Your task to perform on an android device: Open internet settings Image 0: 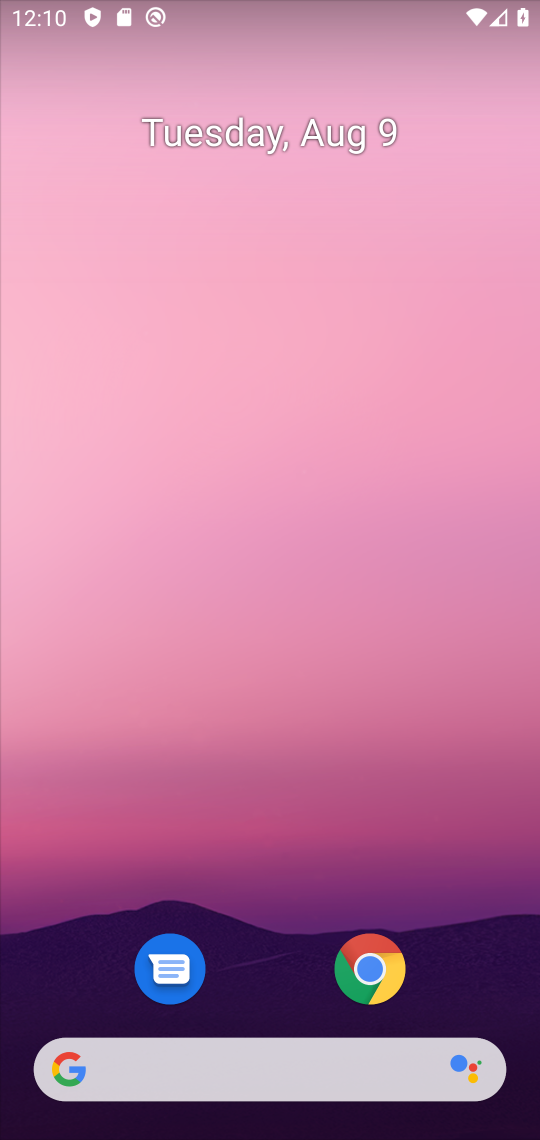
Step 0: drag from (304, 950) to (297, 256)
Your task to perform on an android device: Open internet settings Image 1: 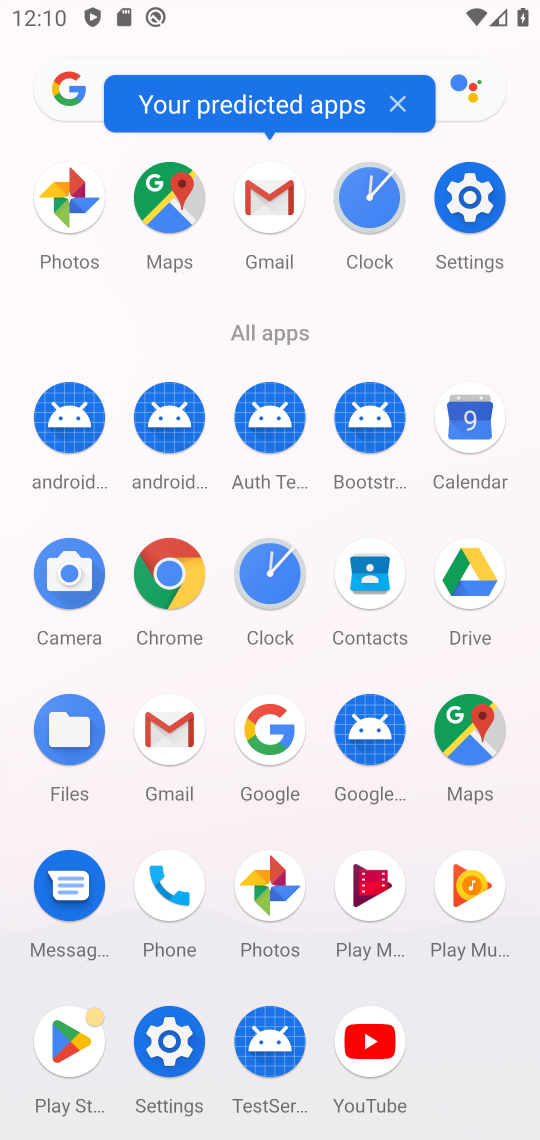
Step 1: click (181, 1071)
Your task to perform on an android device: Open internet settings Image 2: 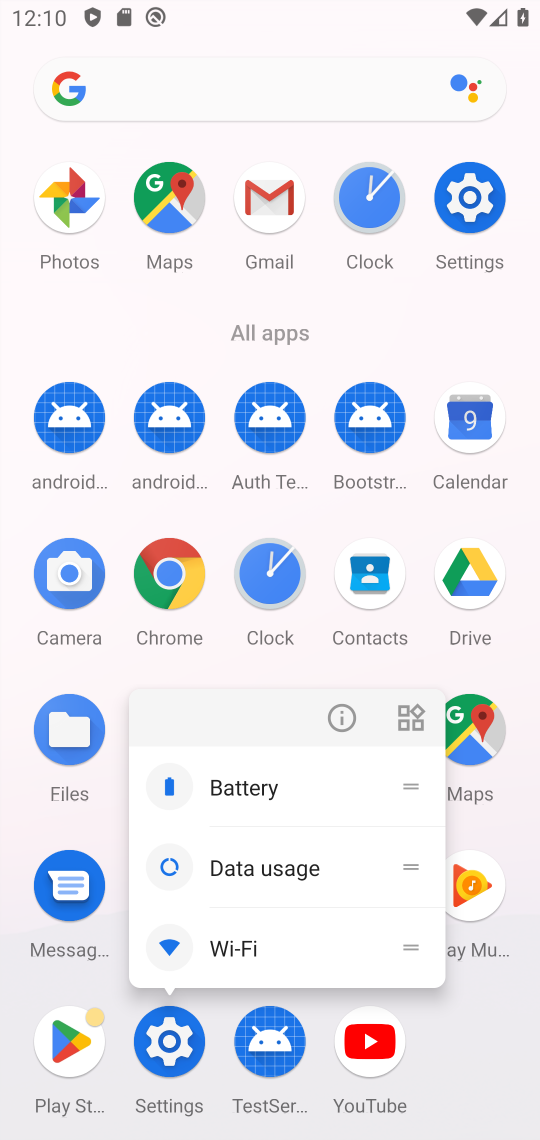
Step 2: click (349, 709)
Your task to perform on an android device: Open internet settings Image 3: 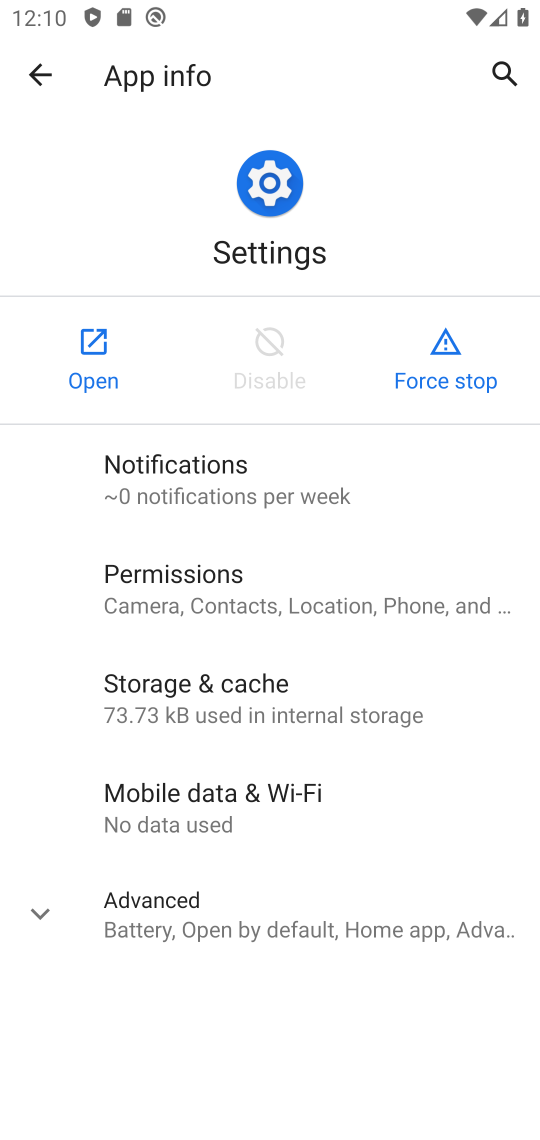
Step 3: click (91, 348)
Your task to perform on an android device: Open internet settings Image 4: 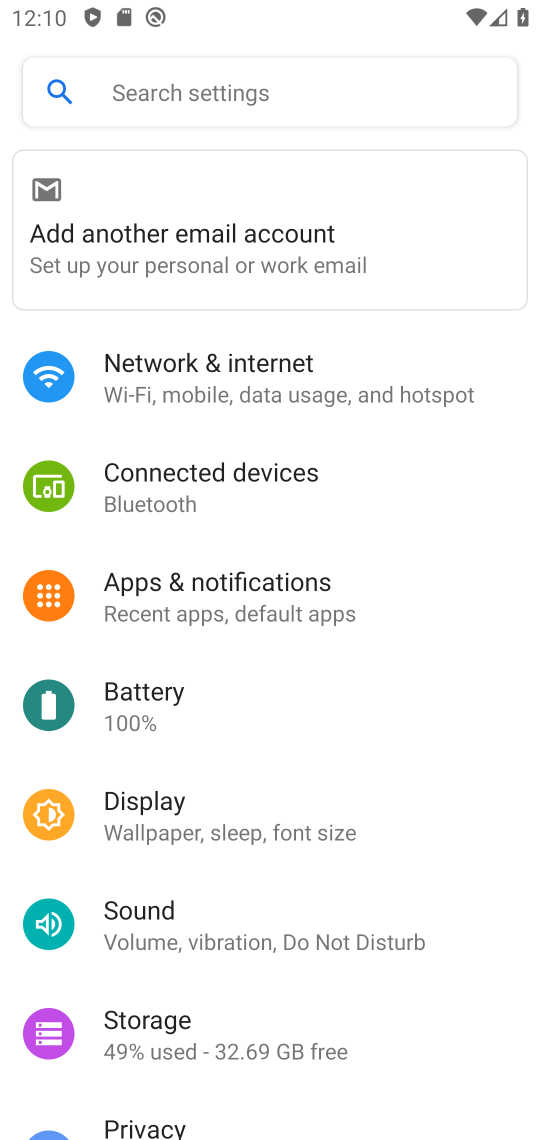
Step 4: click (230, 406)
Your task to perform on an android device: Open internet settings Image 5: 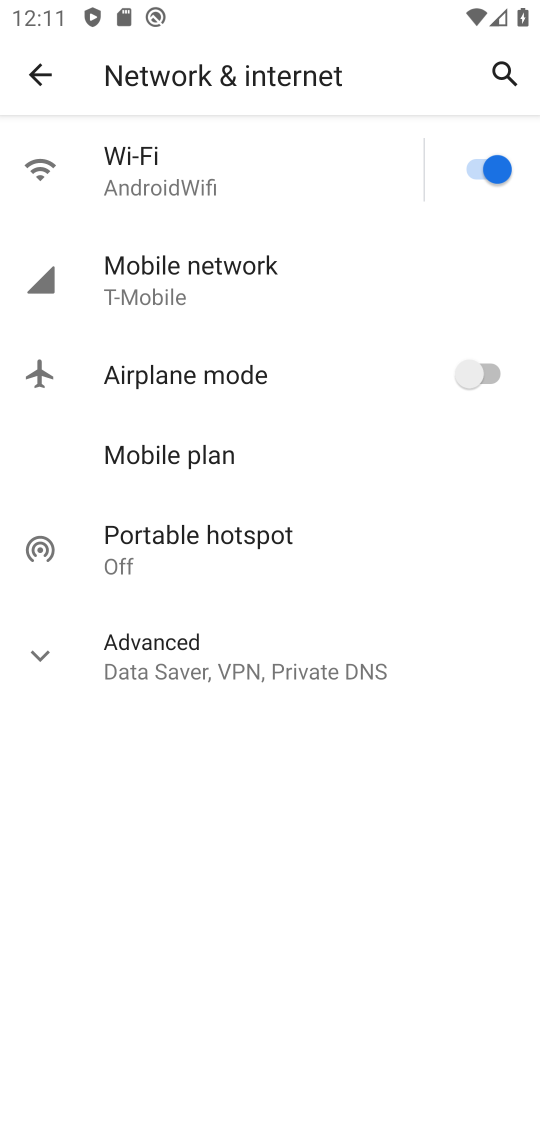
Step 5: click (249, 460)
Your task to perform on an android device: Open internet settings Image 6: 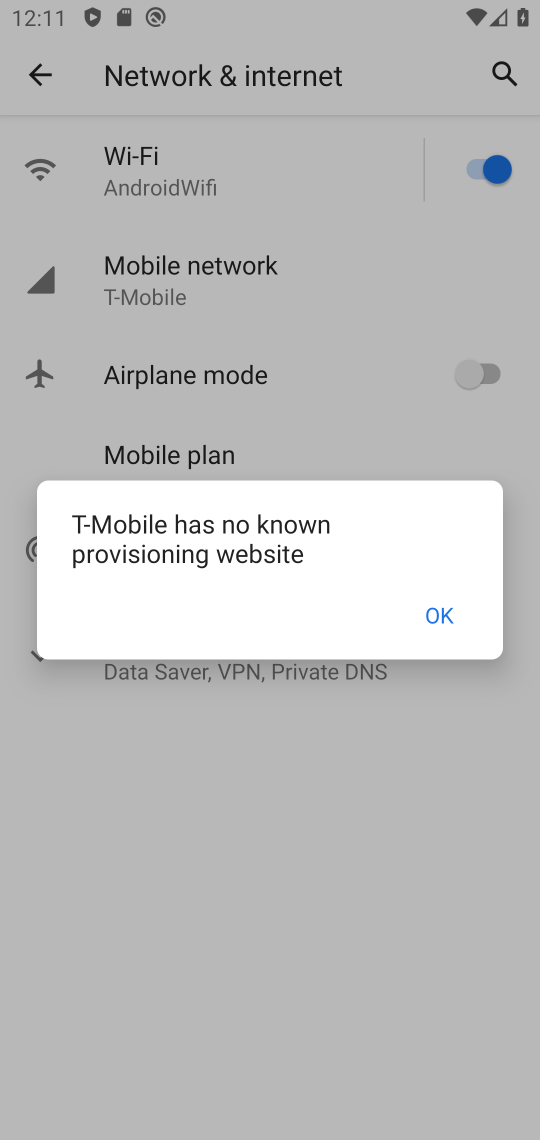
Step 6: task complete